Your task to perform on an android device: Is it going to rain today? Image 0: 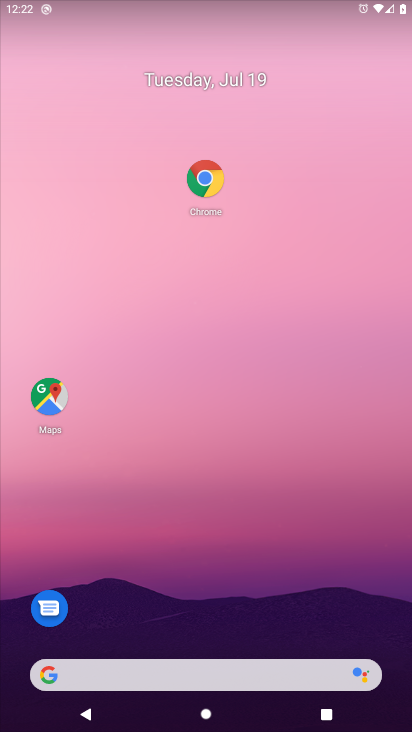
Step 0: click (97, 678)
Your task to perform on an android device: Is it going to rain today? Image 1: 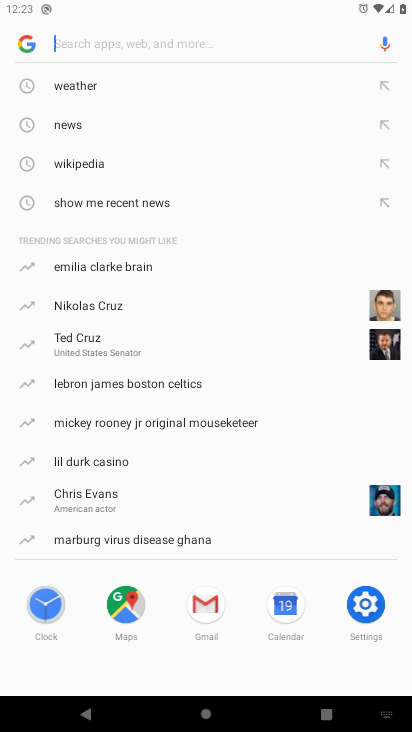
Step 1: type "Is it going to rain today?"
Your task to perform on an android device: Is it going to rain today? Image 2: 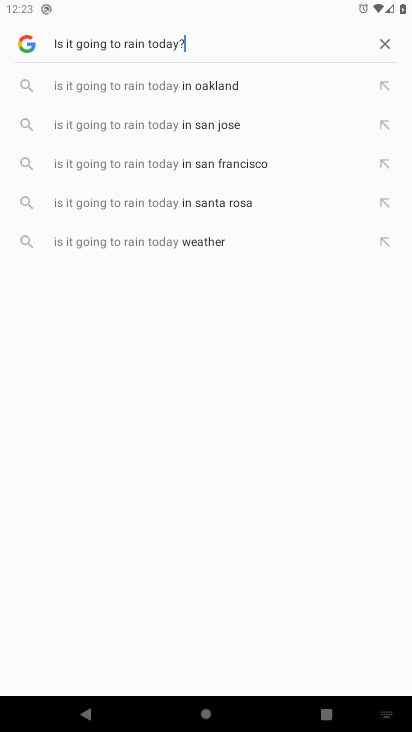
Step 2: type ""
Your task to perform on an android device: Is it going to rain today? Image 3: 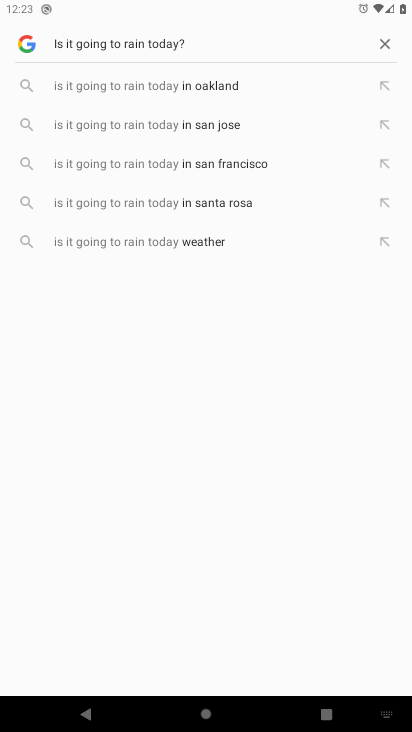
Step 3: type ""
Your task to perform on an android device: Is it going to rain today? Image 4: 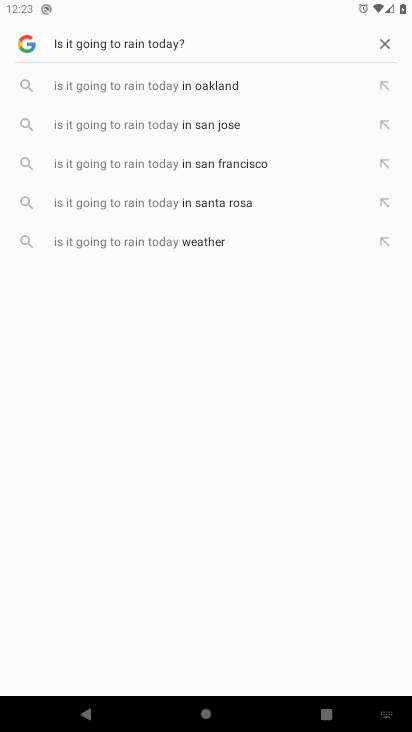
Step 4: type ""
Your task to perform on an android device: Is it going to rain today? Image 5: 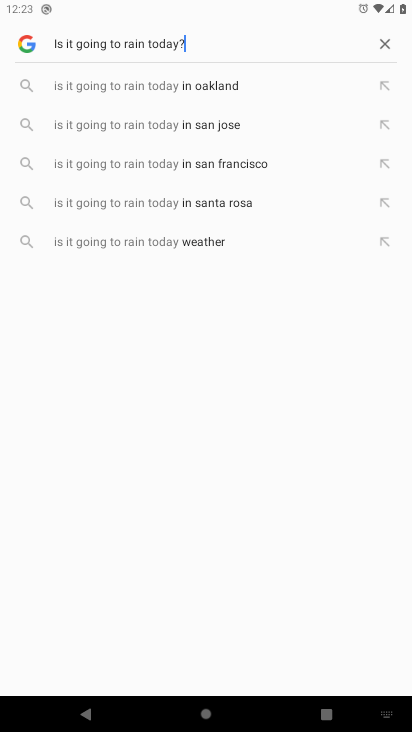
Step 5: task complete